Your task to perform on an android device: turn off javascript in the chrome app Image 0: 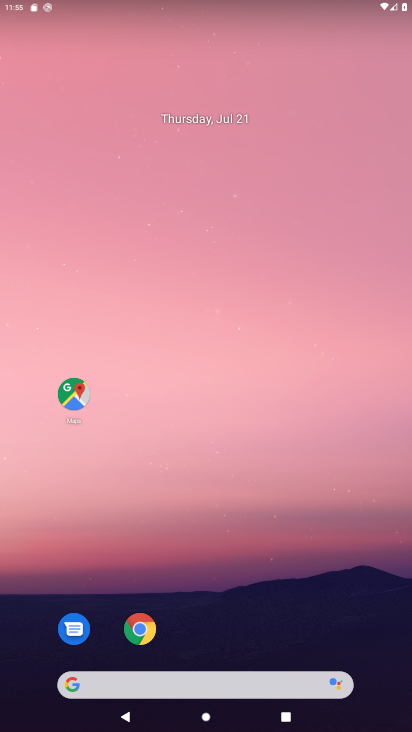
Step 0: drag from (241, 647) to (201, 150)
Your task to perform on an android device: turn off javascript in the chrome app Image 1: 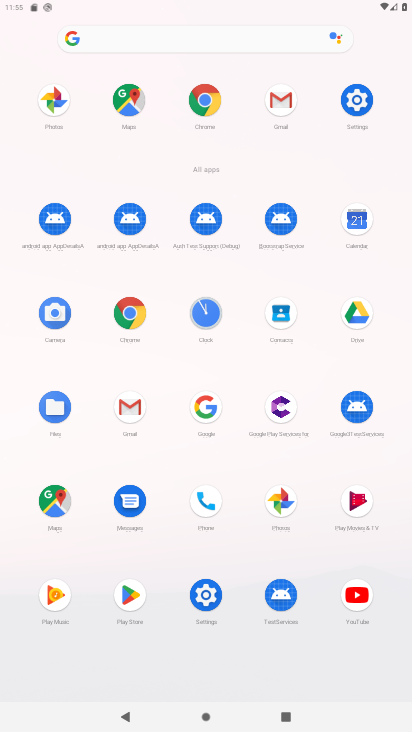
Step 1: click (124, 319)
Your task to perform on an android device: turn off javascript in the chrome app Image 2: 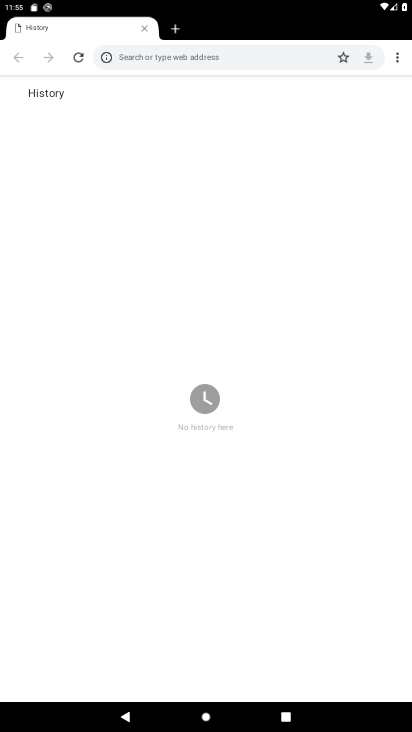
Step 2: click (394, 55)
Your task to perform on an android device: turn off javascript in the chrome app Image 3: 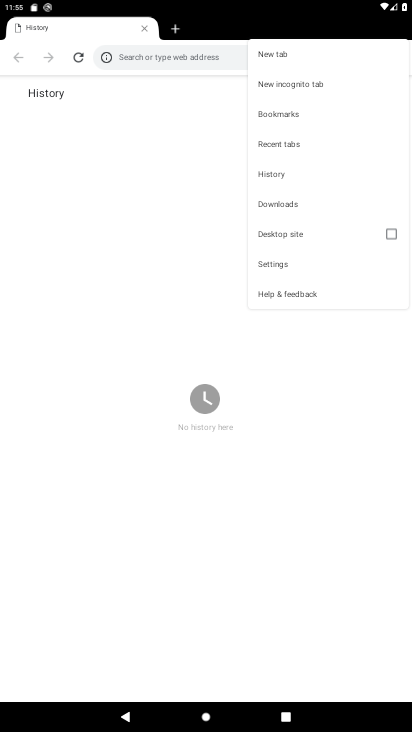
Step 3: click (267, 266)
Your task to perform on an android device: turn off javascript in the chrome app Image 4: 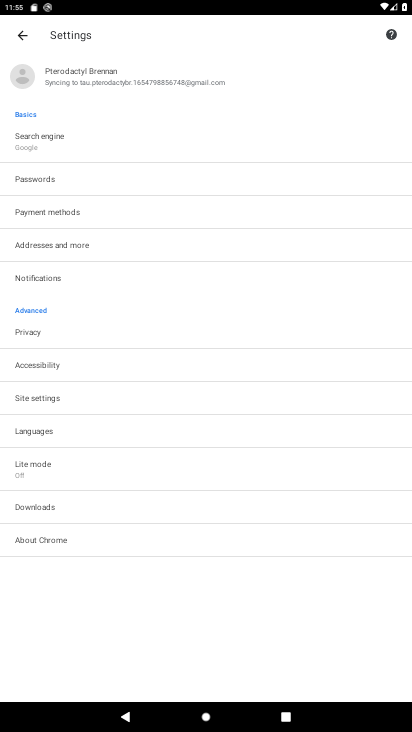
Step 4: click (54, 401)
Your task to perform on an android device: turn off javascript in the chrome app Image 5: 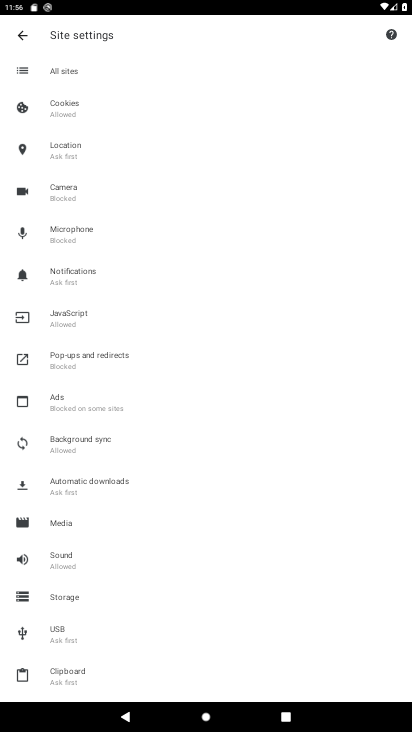
Step 5: click (80, 322)
Your task to perform on an android device: turn off javascript in the chrome app Image 6: 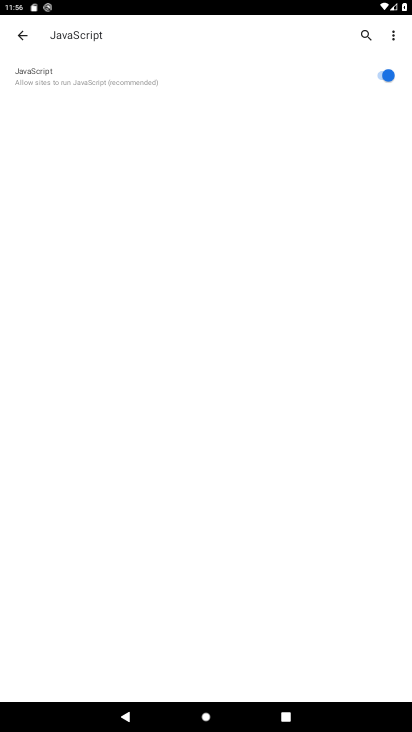
Step 6: click (345, 76)
Your task to perform on an android device: turn off javascript in the chrome app Image 7: 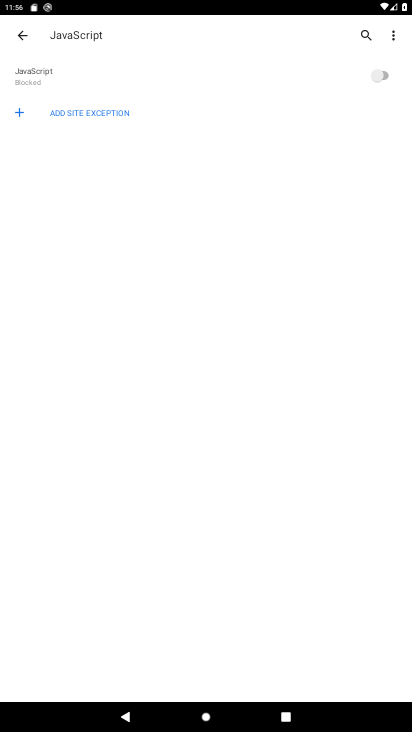
Step 7: task complete